Your task to perform on an android device: make emails show in primary in the gmail app Image 0: 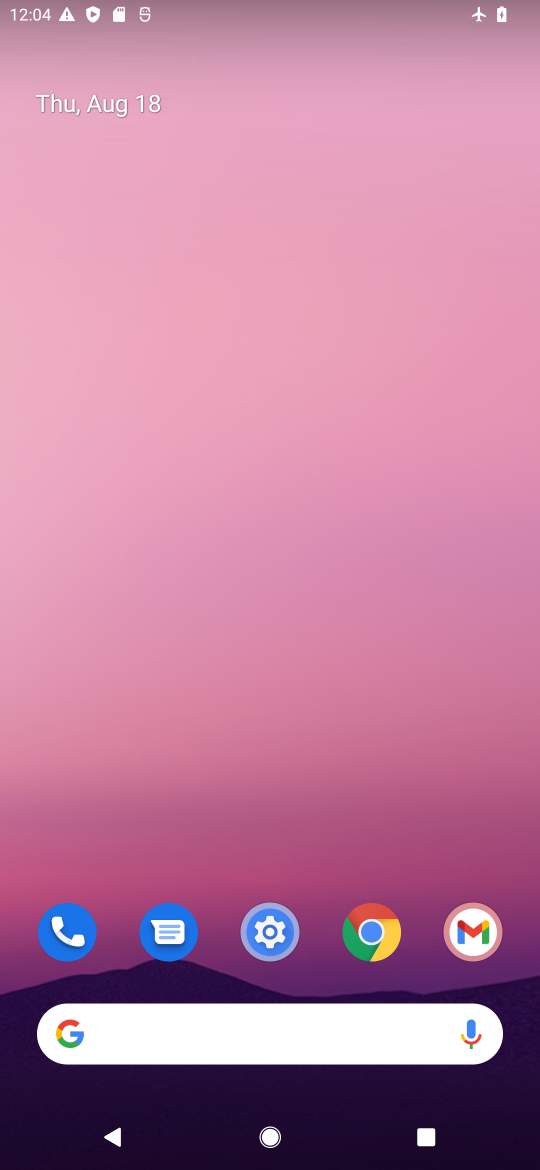
Step 0: click (478, 933)
Your task to perform on an android device: make emails show in primary in the gmail app Image 1: 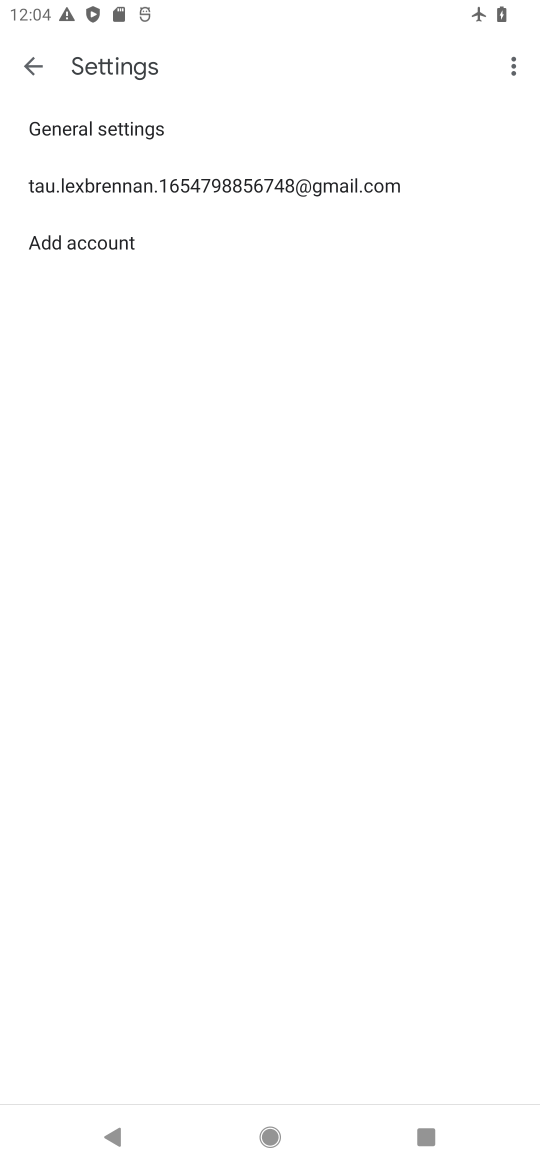
Step 1: click (37, 61)
Your task to perform on an android device: make emails show in primary in the gmail app Image 2: 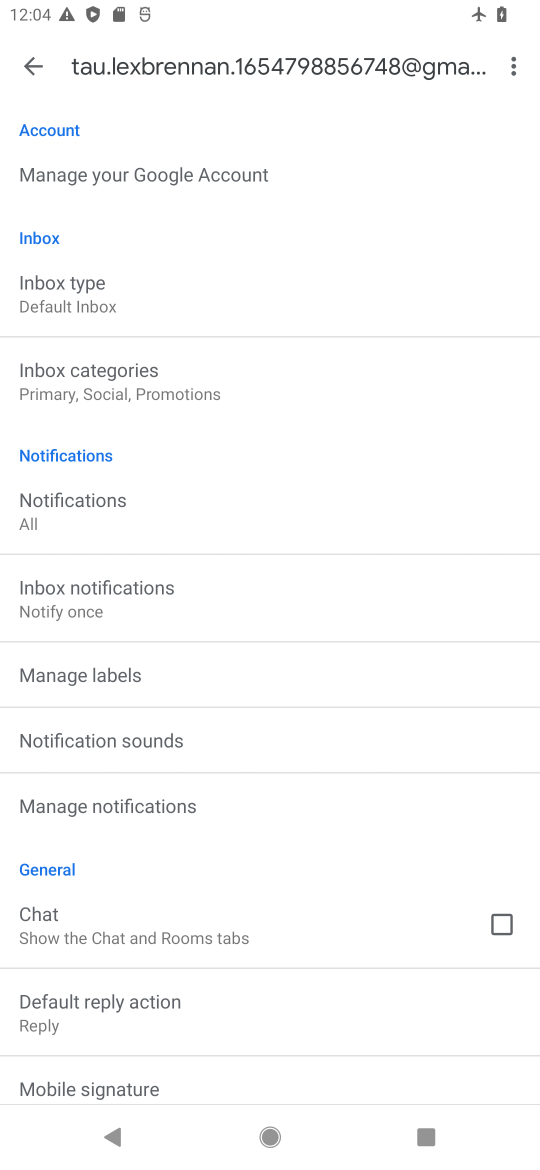
Step 2: click (32, 60)
Your task to perform on an android device: make emails show in primary in the gmail app Image 3: 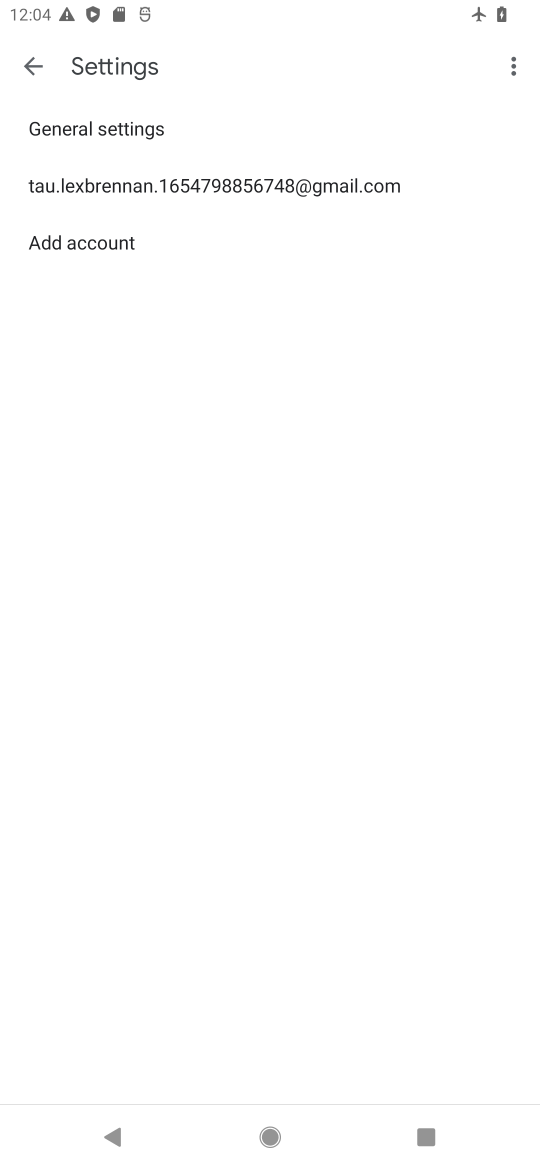
Step 3: click (32, 58)
Your task to perform on an android device: make emails show in primary in the gmail app Image 4: 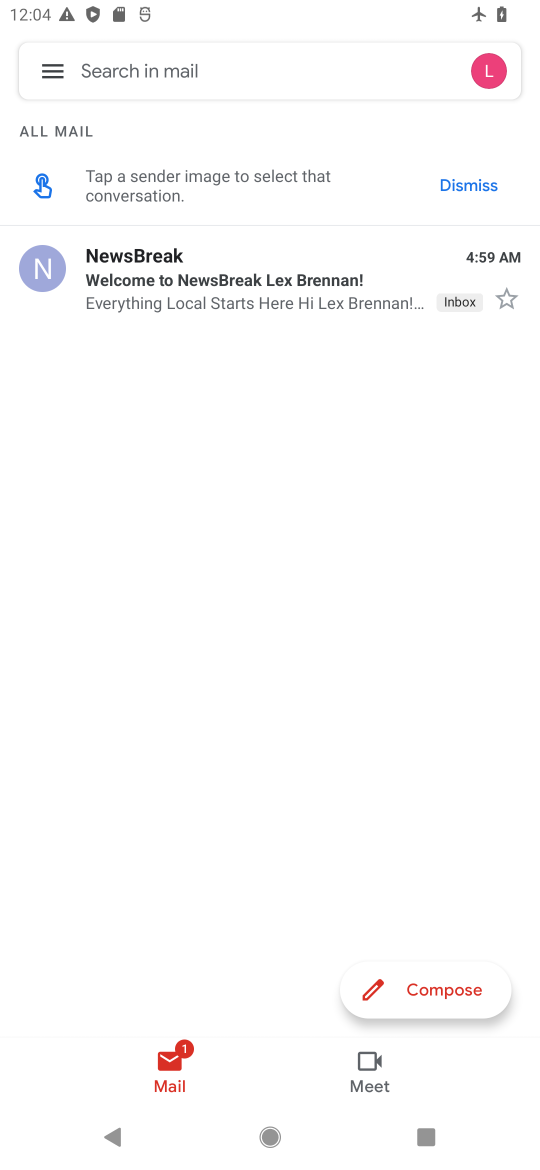
Step 4: click (45, 69)
Your task to perform on an android device: make emails show in primary in the gmail app Image 5: 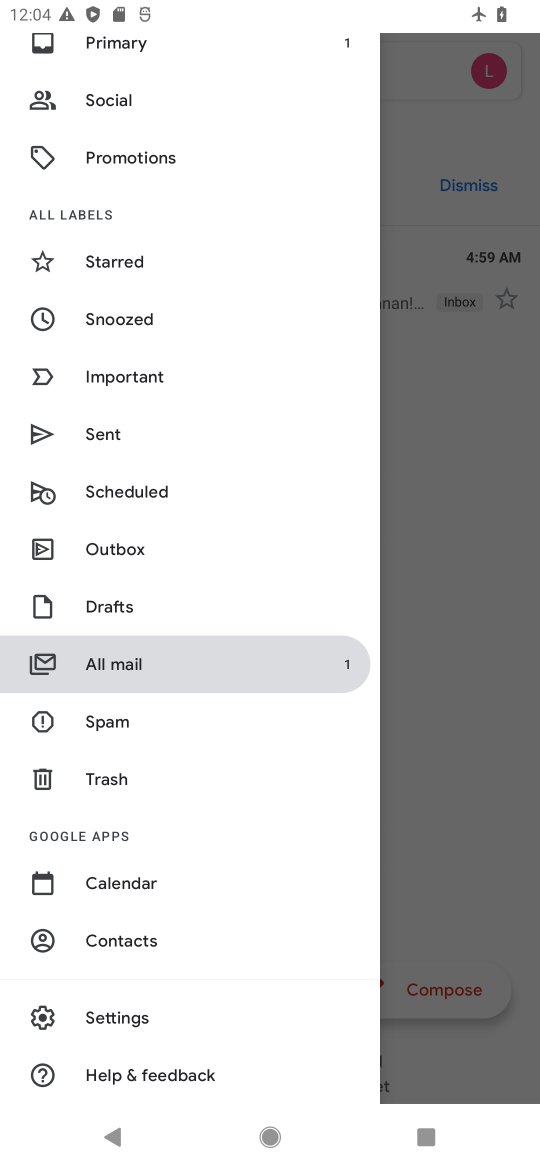
Step 5: drag from (212, 150) to (154, 513)
Your task to perform on an android device: make emails show in primary in the gmail app Image 6: 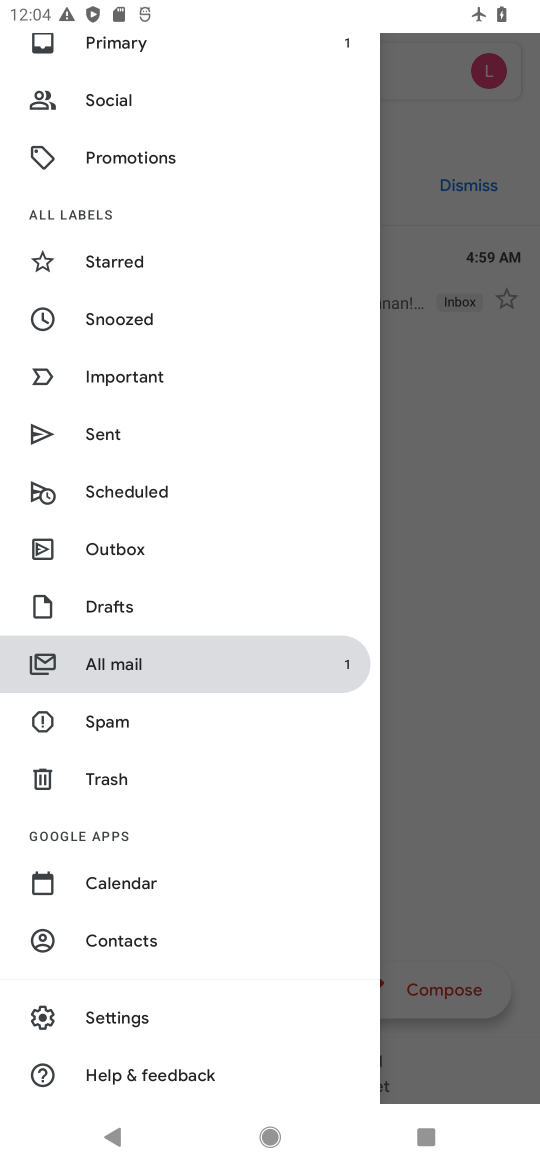
Step 6: drag from (181, 182) to (163, 456)
Your task to perform on an android device: make emails show in primary in the gmail app Image 7: 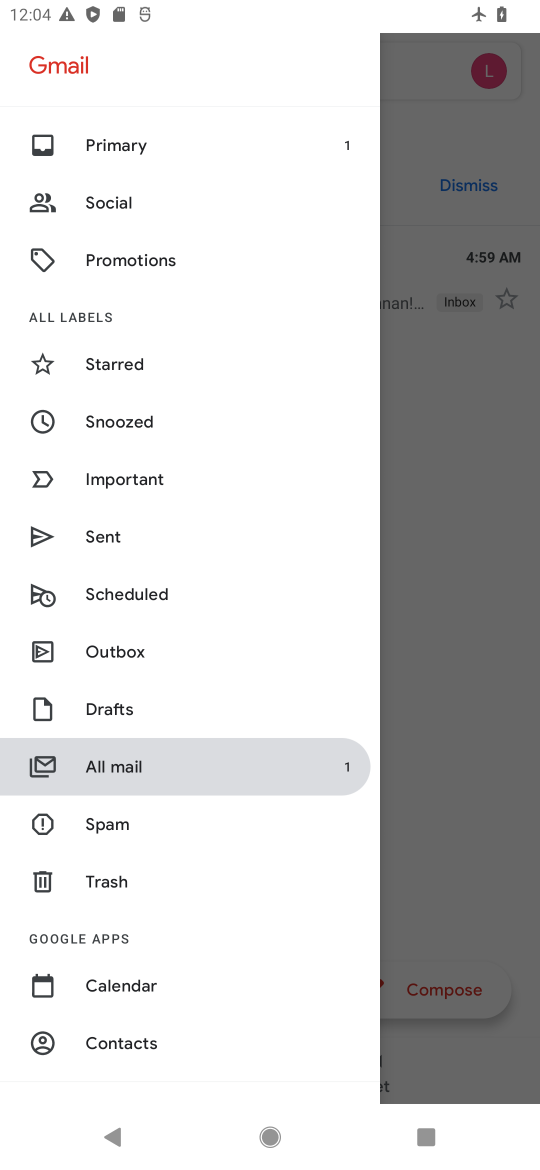
Step 7: click (104, 135)
Your task to perform on an android device: make emails show in primary in the gmail app Image 8: 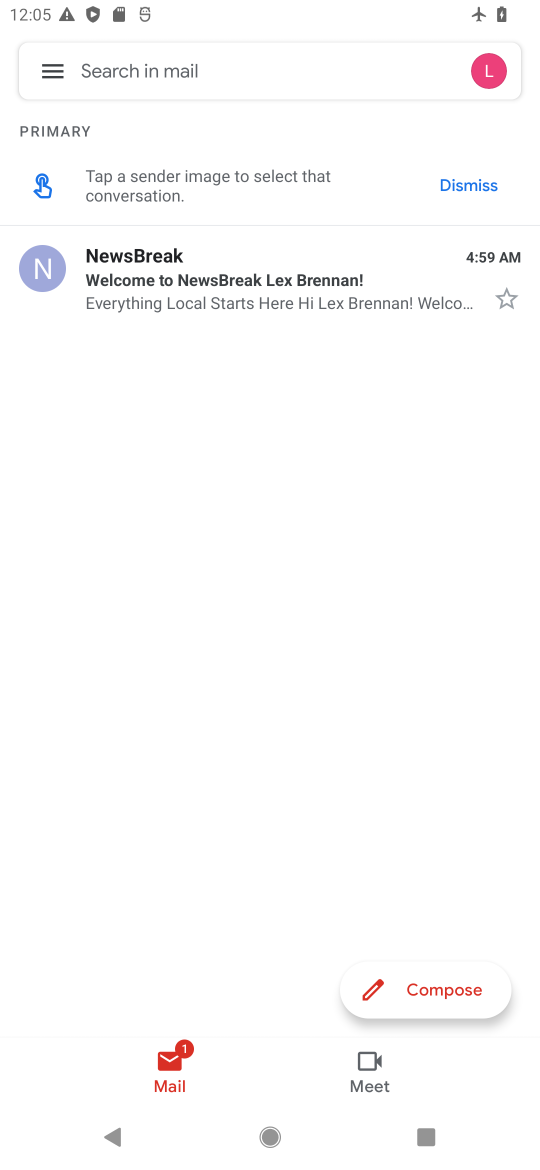
Step 8: task complete